Your task to perform on an android device: Go to Reddit.com Image 0: 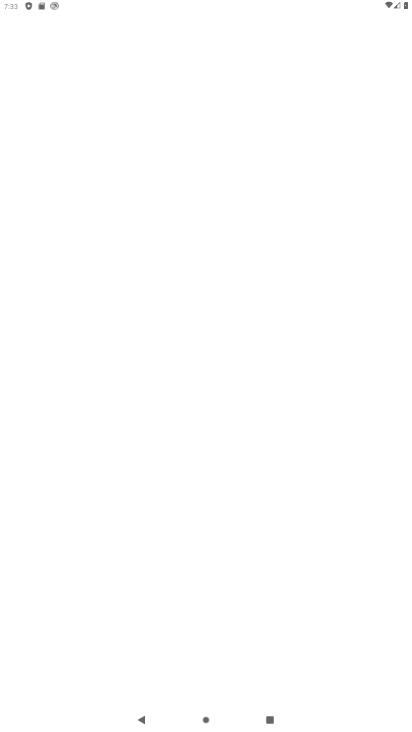
Step 0: drag from (263, 584) to (67, 4)
Your task to perform on an android device: Go to Reddit.com Image 1: 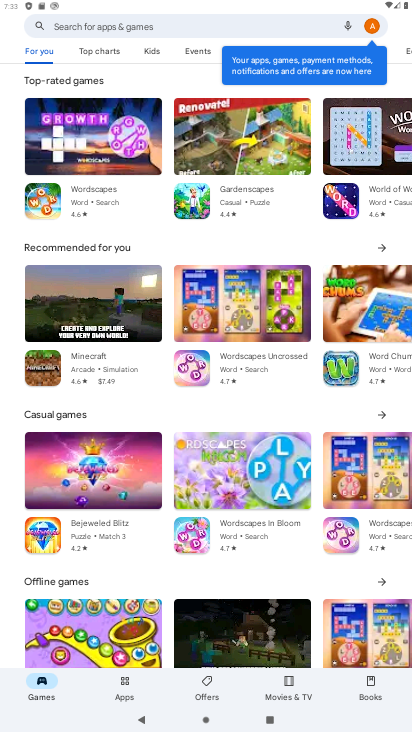
Step 1: press home button
Your task to perform on an android device: Go to Reddit.com Image 2: 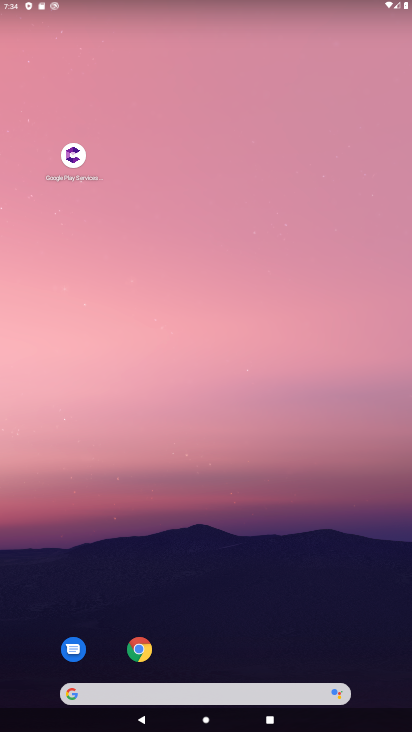
Step 2: drag from (214, 527) to (165, 94)
Your task to perform on an android device: Go to Reddit.com Image 3: 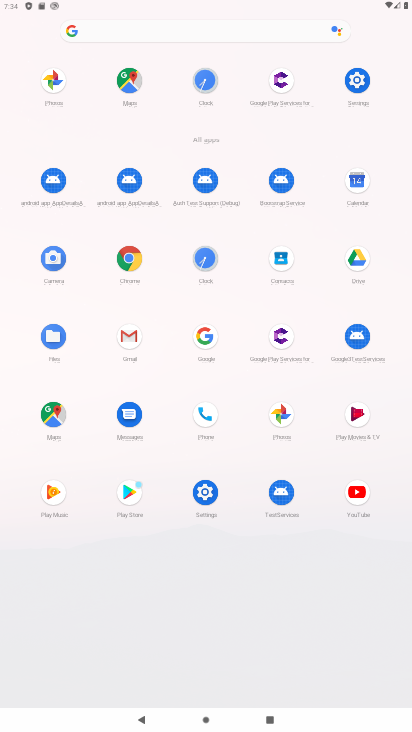
Step 3: click (124, 261)
Your task to perform on an android device: Go to Reddit.com Image 4: 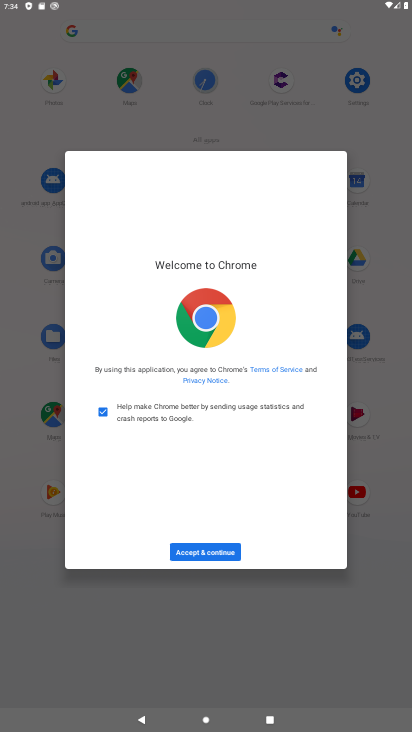
Step 4: click (192, 553)
Your task to perform on an android device: Go to Reddit.com Image 5: 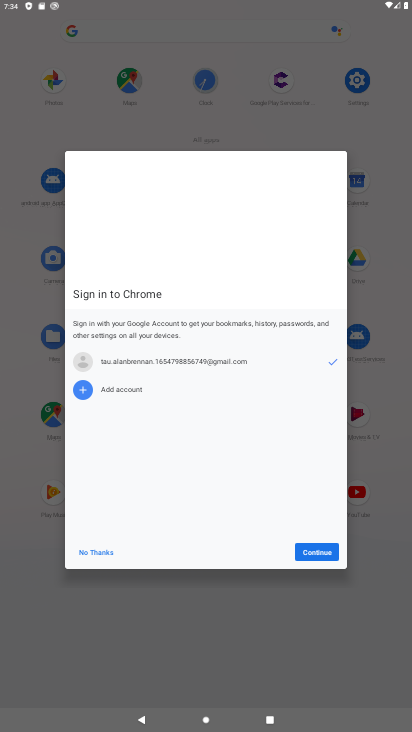
Step 5: click (94, 559)
Your task to perform on an android device: Go to Reddit.com Image 6: 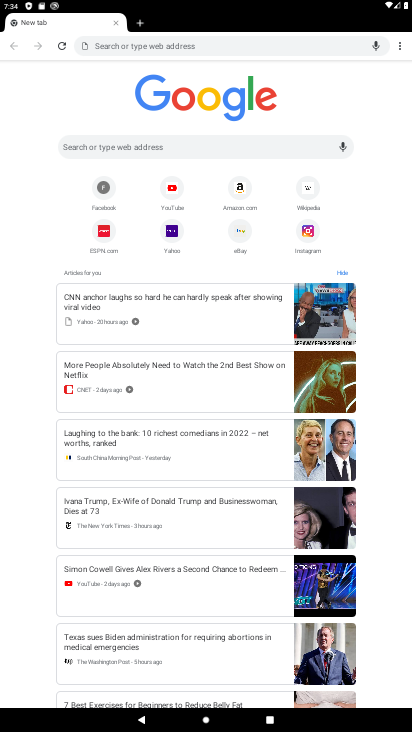
Step 6: click (205, 144)
Your task to perform on an android device: Go to Reddit.com Image 7: 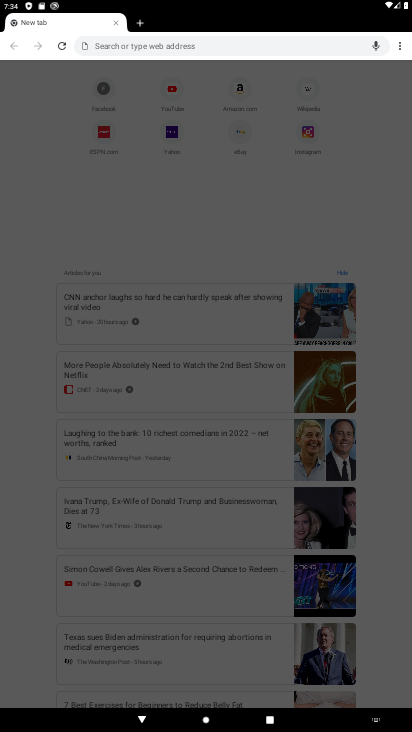
Step 7: type "Reddit.com"
Your task to perform on an android device: Go to Reddit.com Image 8: 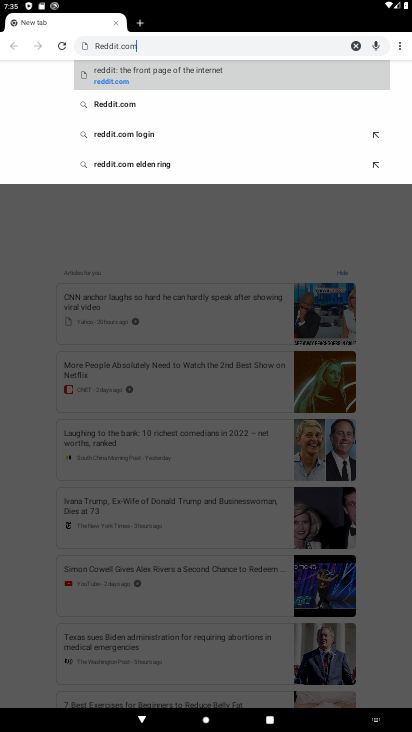
Step 8: press enter
Your task to perform on an android device: Go to Reddit.com Image 9: 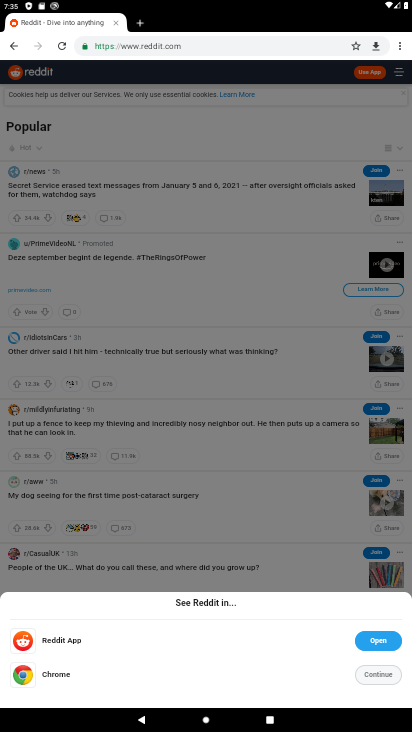
Step 9: task complete